Your task to perform on an android device: Open Google Chrome Image 0: 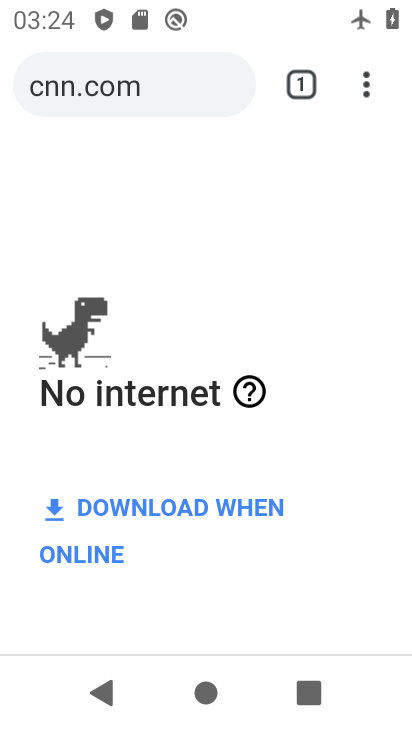
Step 0: task complete